Your task to perform on an android device: search for starred emails in the gmail app Image 0: 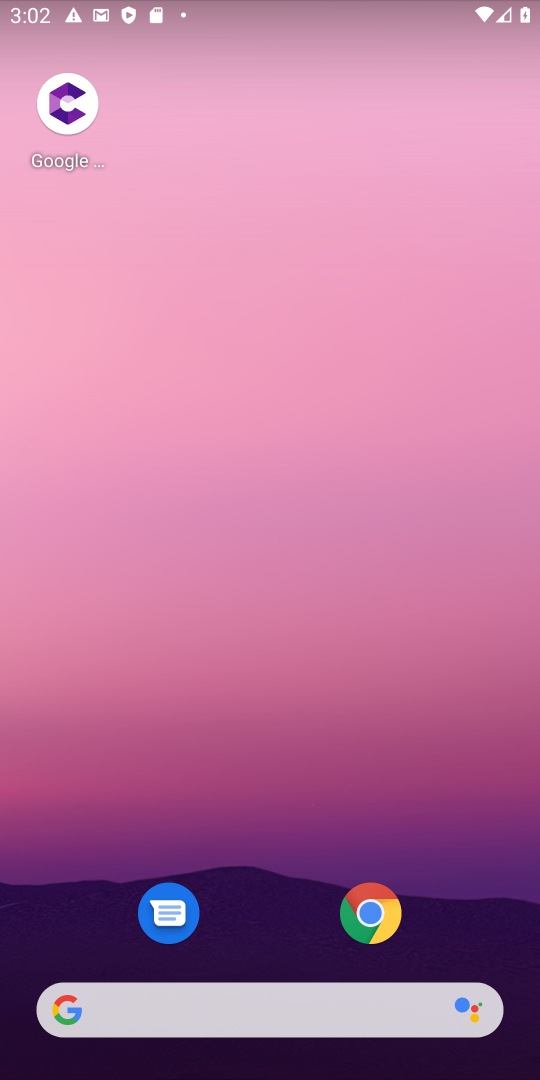
Step 0: drag from (375, 1010) to (329, 12)
Your task to perform on an android device: search for starred emails in the gmail app Image 1: 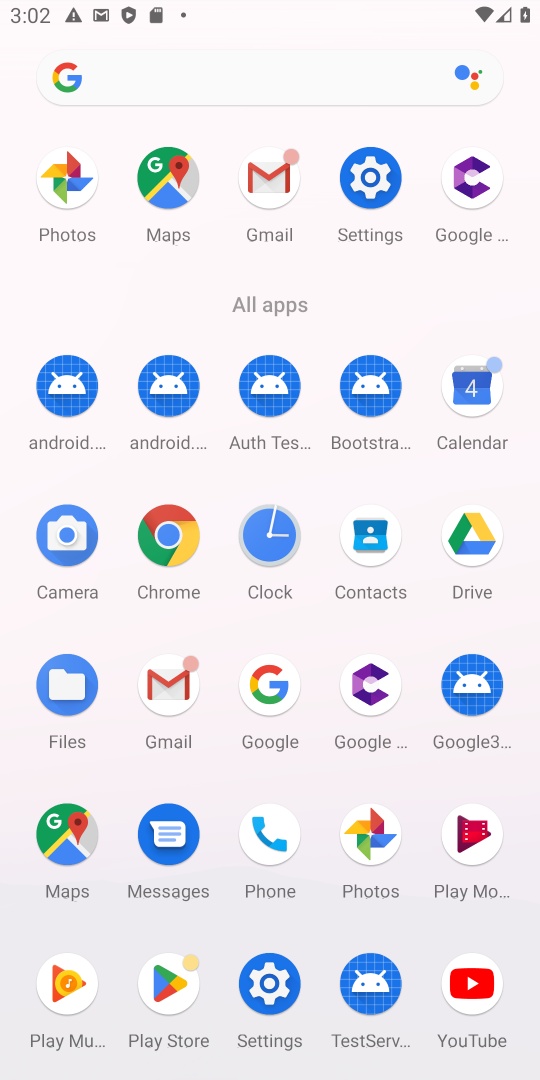
Step 1: click (183, 690)
Your task to perform on an android device: search for starred emails in the gmail app Image 2: 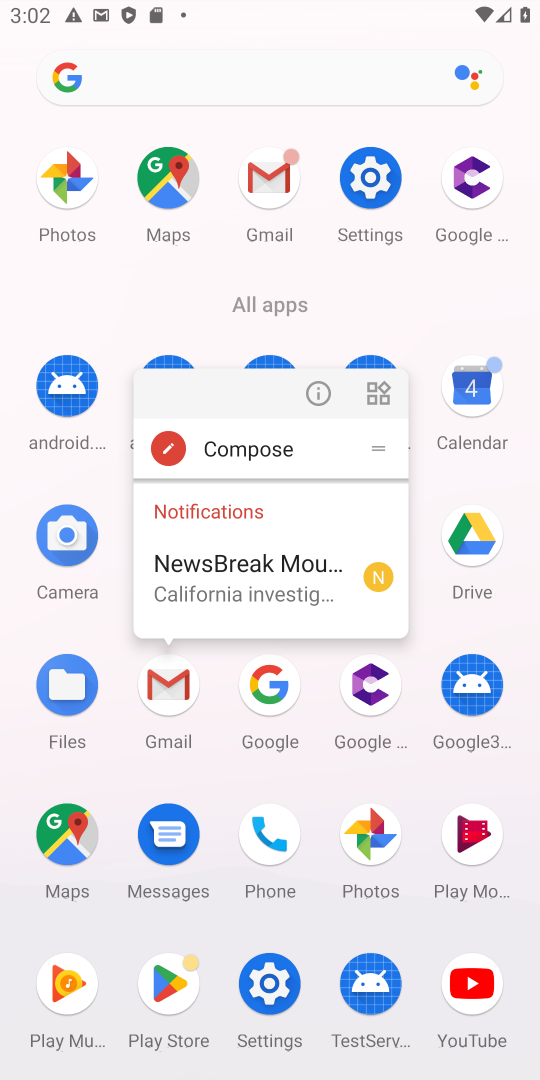
Step 2: click (183, 690)
Your task to perform on an android device: search for starred emails in the gmail app Image 3: 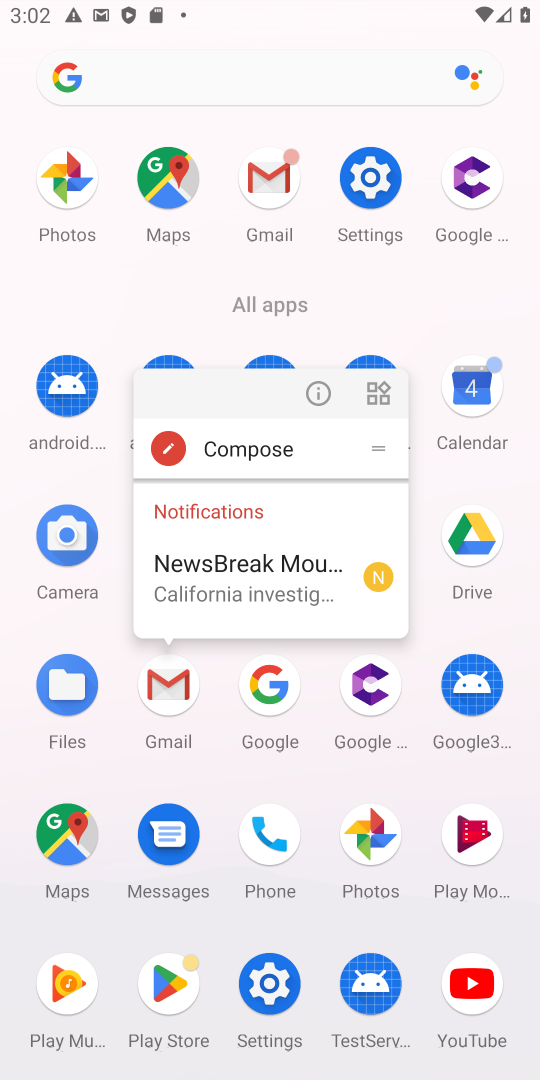
Step 3: click (173, 683)
Your task to perform on an android device: search for starred emails in the gmail app Image 4: 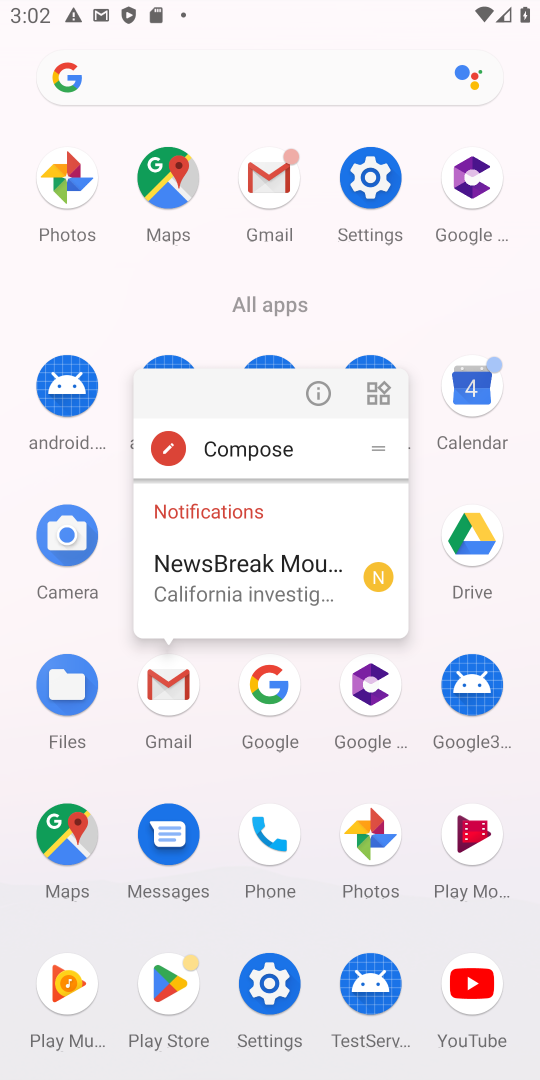
Step 4: click (173, 683)
Your task to perform on an android device: search for starred emails in the gmail app Image 5: 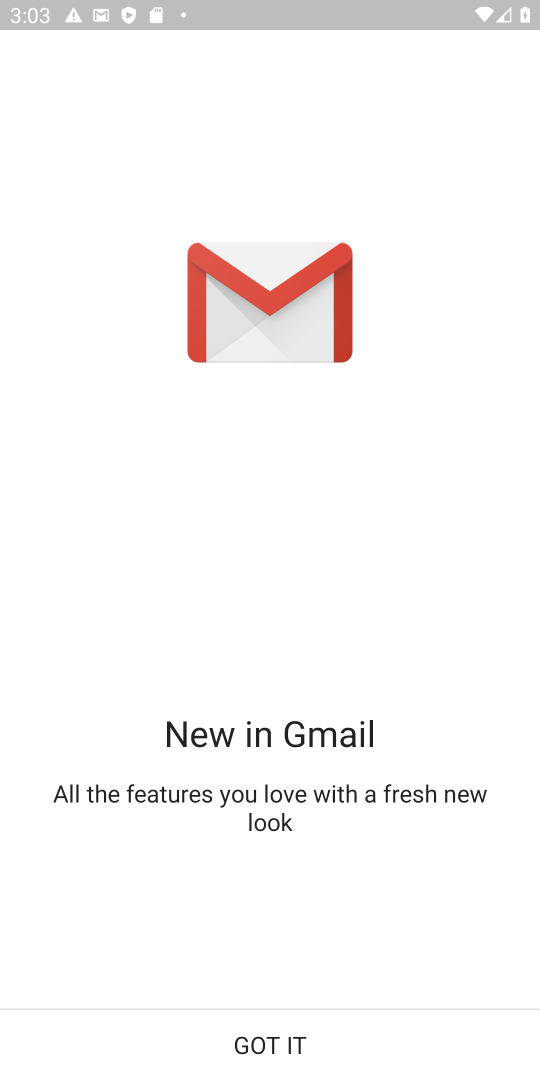
Step 5: click (404, 1048)
Your task to perform on an android device: search for starred emails in the gmail app Image 6: 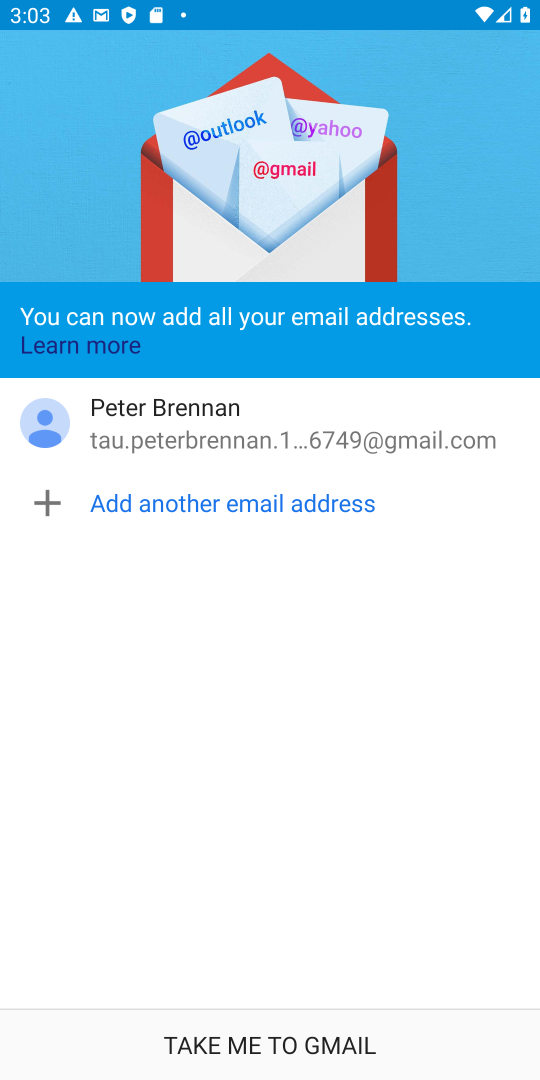
Step 6: click (403, 1049)
Your task to perform on an android device: search for starred emails in the gmail app Image 7: 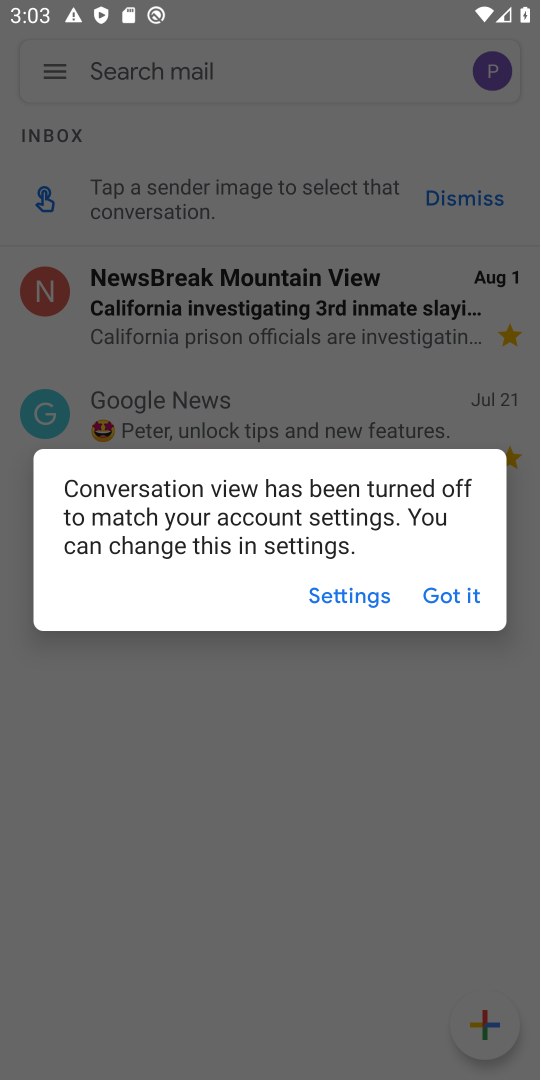
Step 7: click (447, 593)
Your task to perform on an android device: search for starred emails in the gmail app Image 8: 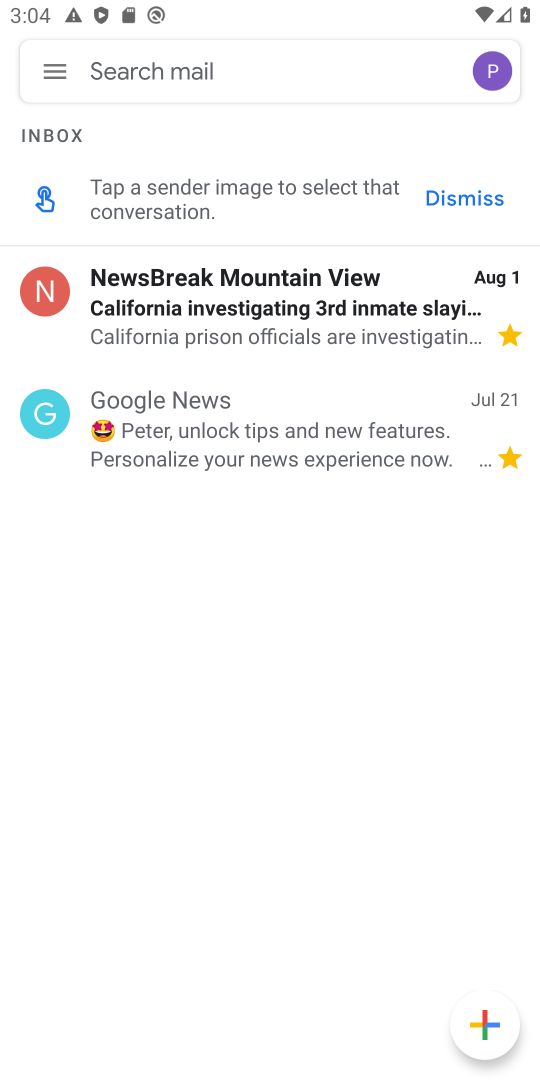
Step 8: click (64, 69)
Your task to perform on an android device: search for starred emails in the gmail app Image 9: 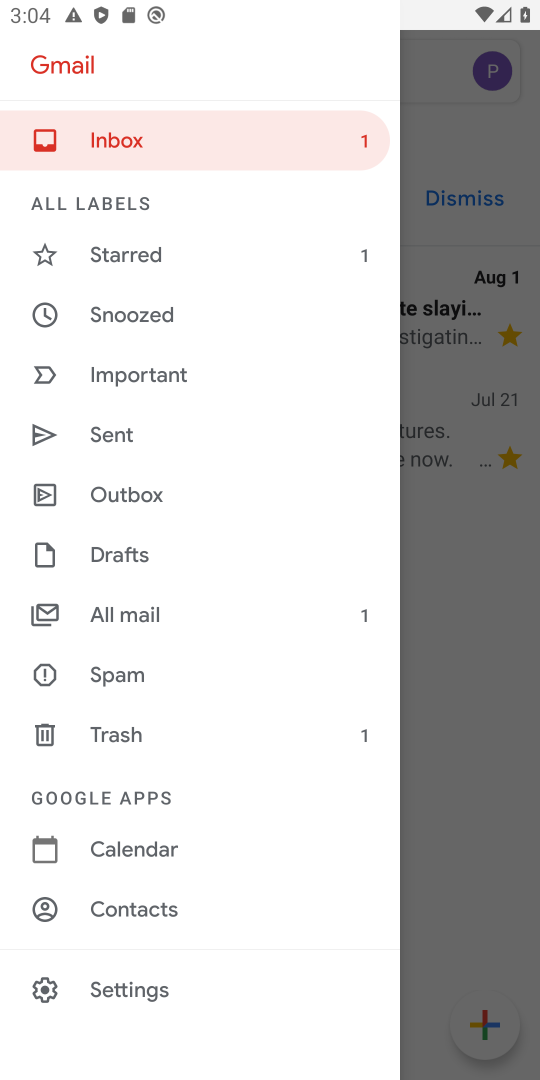
Step 9: click (149, 265)
Your task to perform on an android device: search for starred emails in the gmail app Image 10: 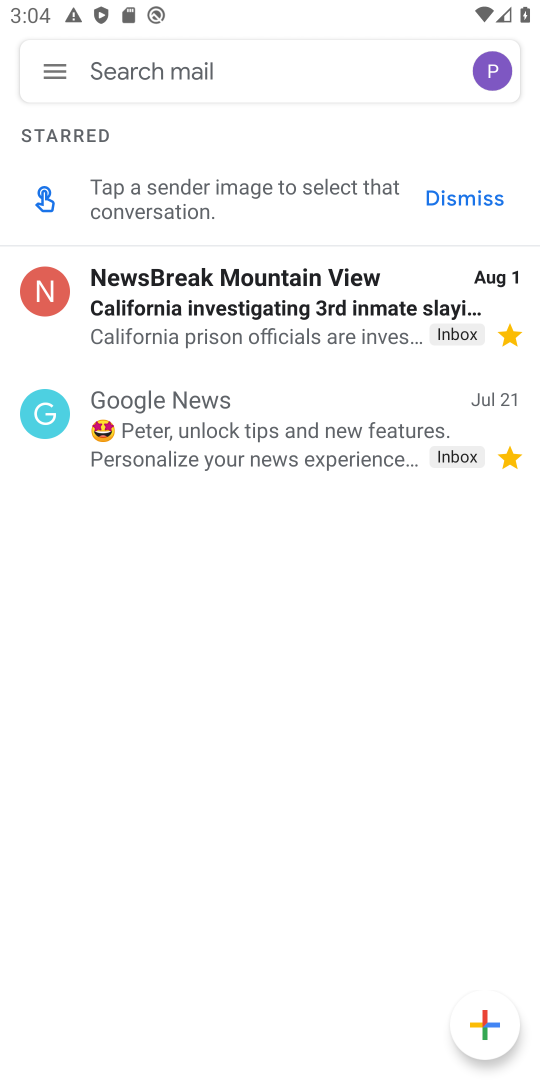
Step 10: click (54, 71)
Your task to perform on an android device: search for starred emails in the gmail app Image 11: 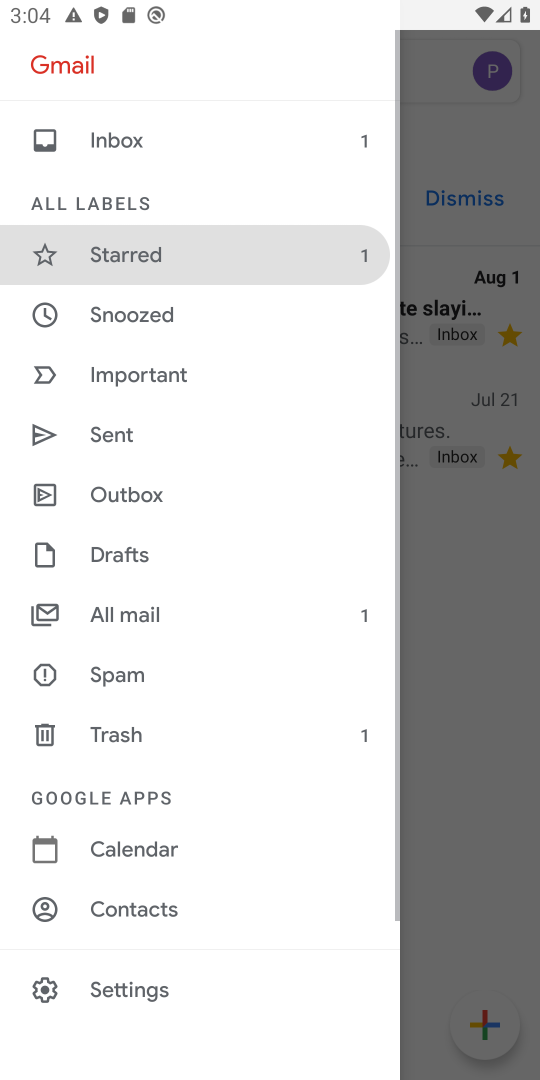
Step 11: click (477, 841)
Your task to perform on an android device: search for starred emails in the gmail app Image 12: 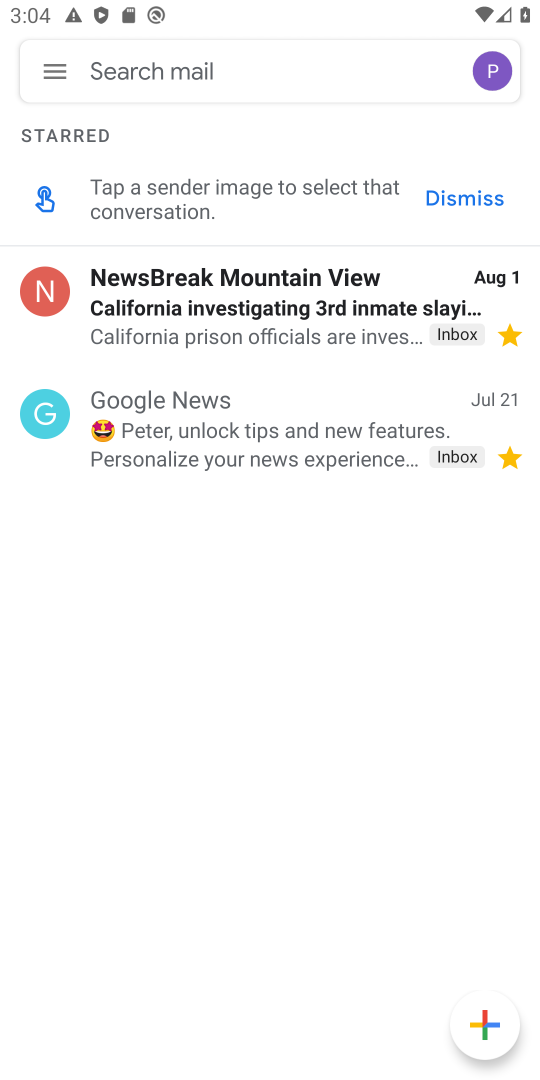
Step 12: task complete